Your task to perform on an android device: What is the speed of a jet? Image 0: 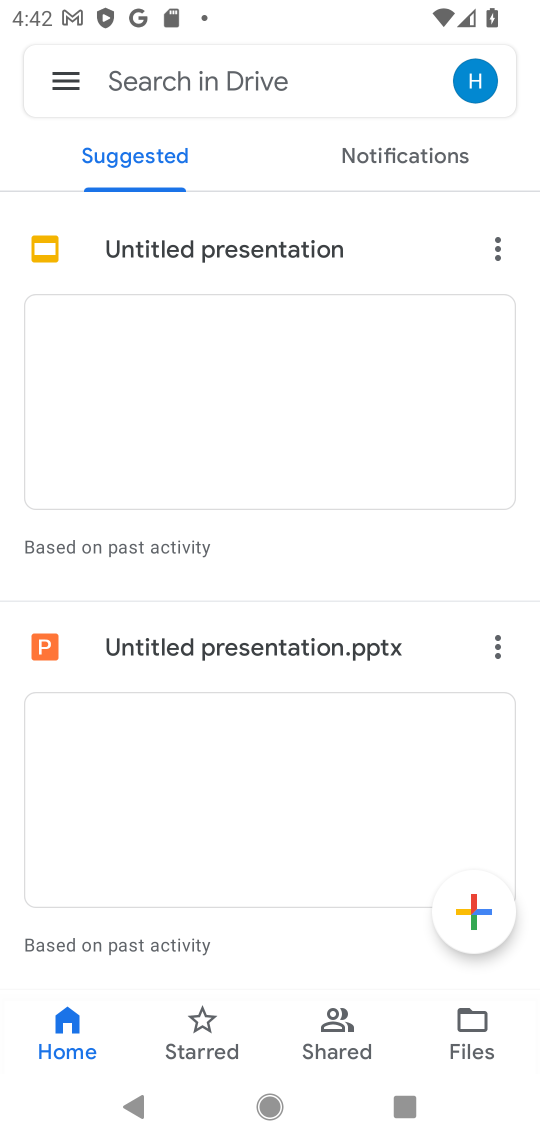
Step 0: press home button
Your task to perform on an android device: What is the speed of a jet? Image 1: 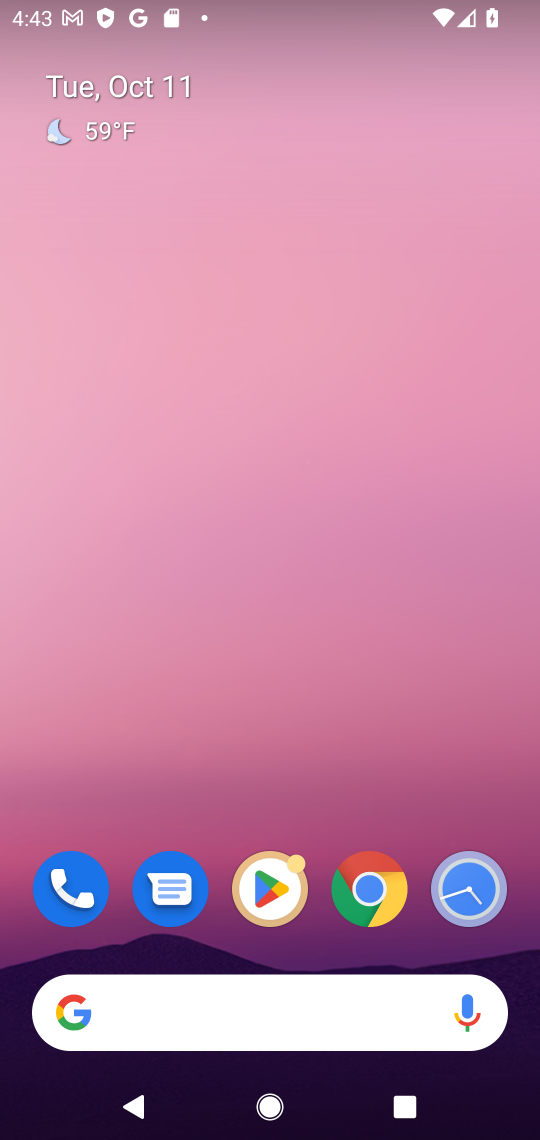
Step 1: drag from (261, 537) to (261, 236)
Your task to perform on an android device: What is the speed of a jet? Image 2: 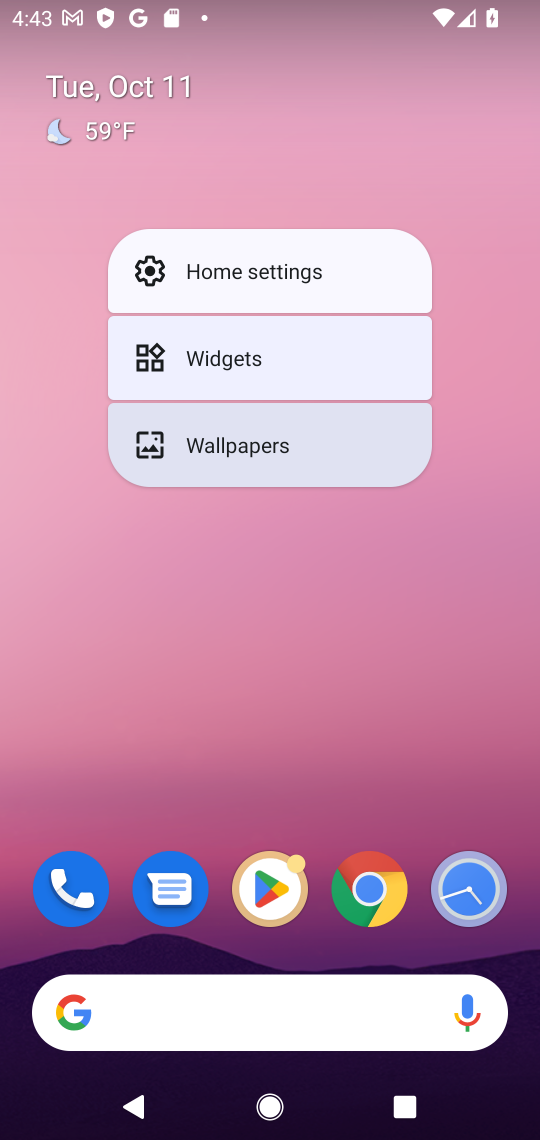
Step 2: click (286, 727)
Your task to perform on an android device: What is the speed of a jet? Image 3: 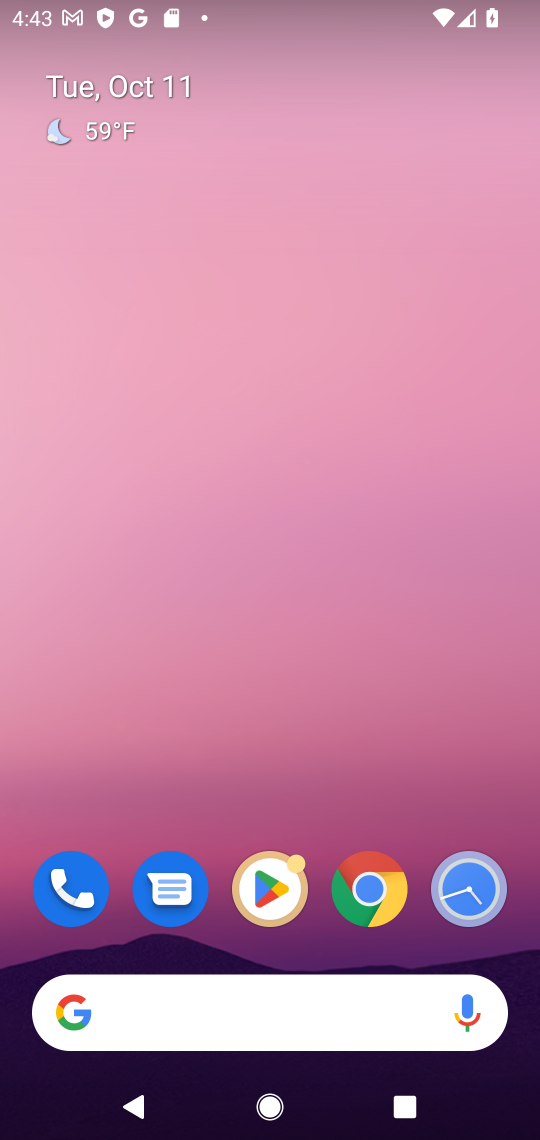
Step 3: drag from (181, 960) to (220, 424)
Your task to perform on an android device: What is the speed of a jet? Image 4: 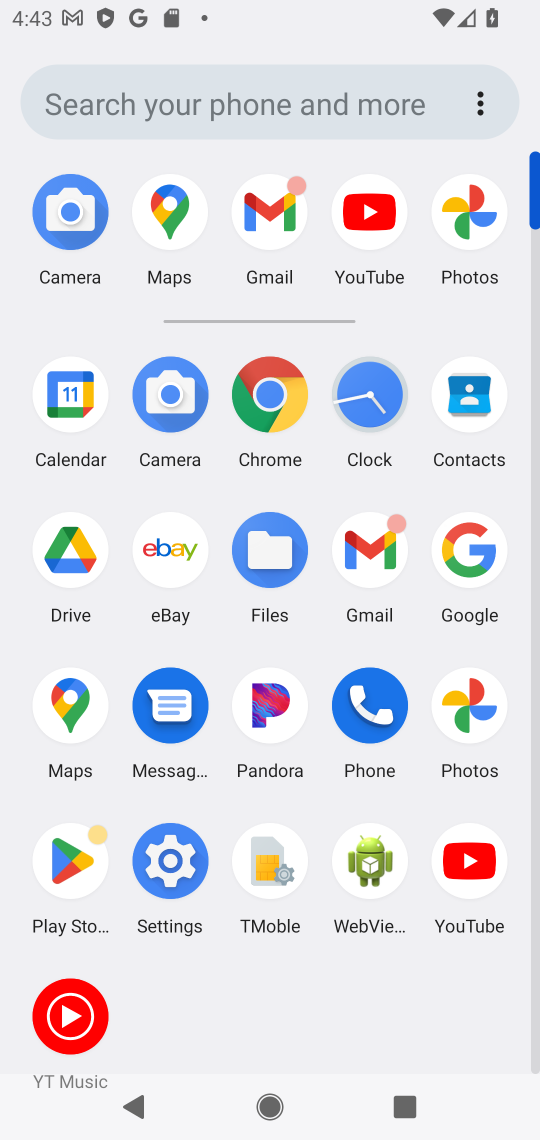
Step 4: click (462, 548)
Your task to perform on an android device: What is the speed of a jet? Image 5: 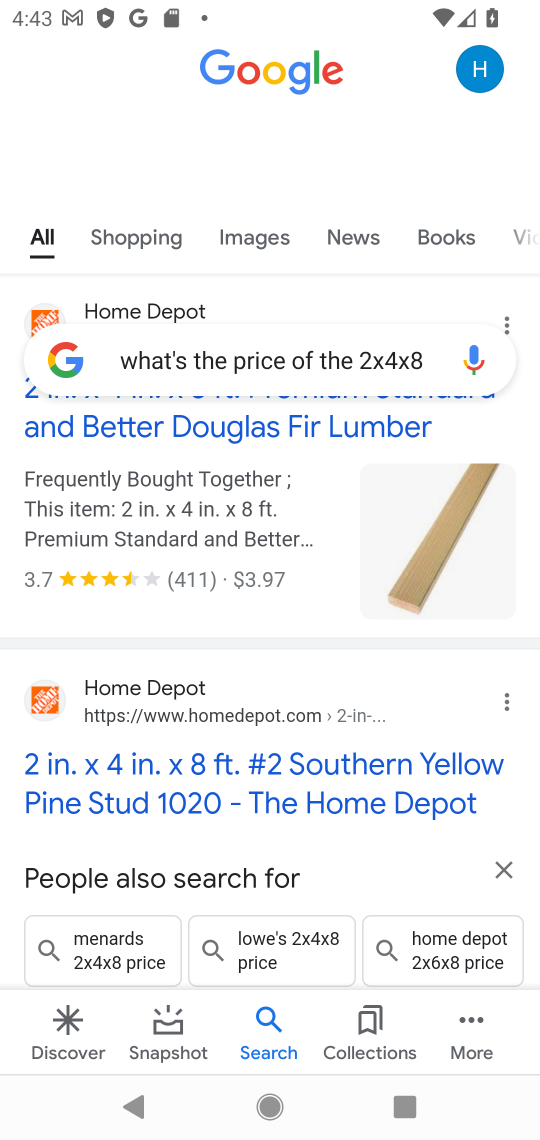
Step 5: click (239, 357)
Your task to perform on an android device: What is the speed of a jet? Image 6: 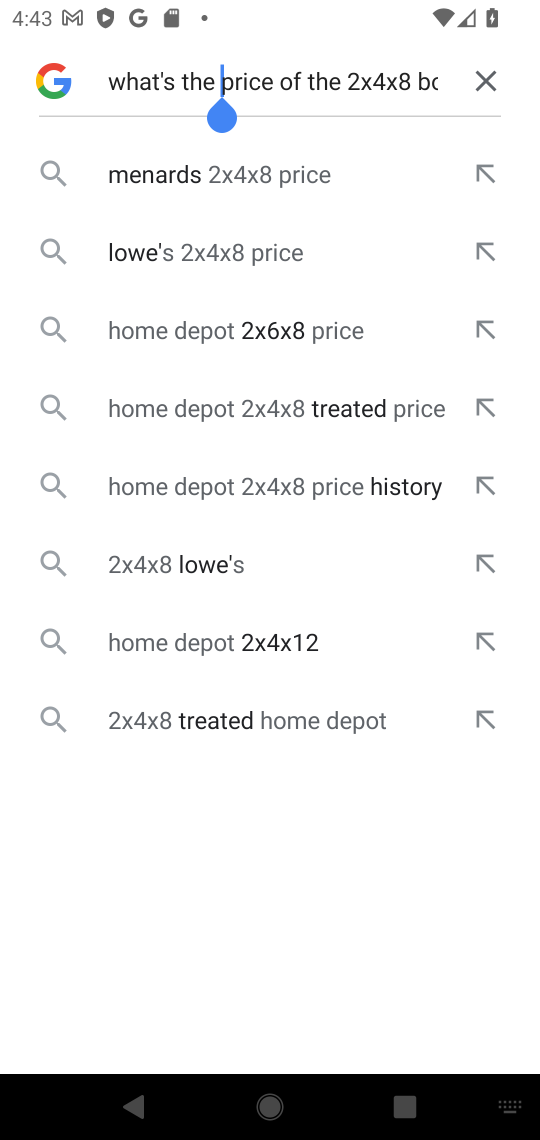
Step 6: click (486, 76)
Your task to perform on an android device: What is the speed of a jet? Image 7: 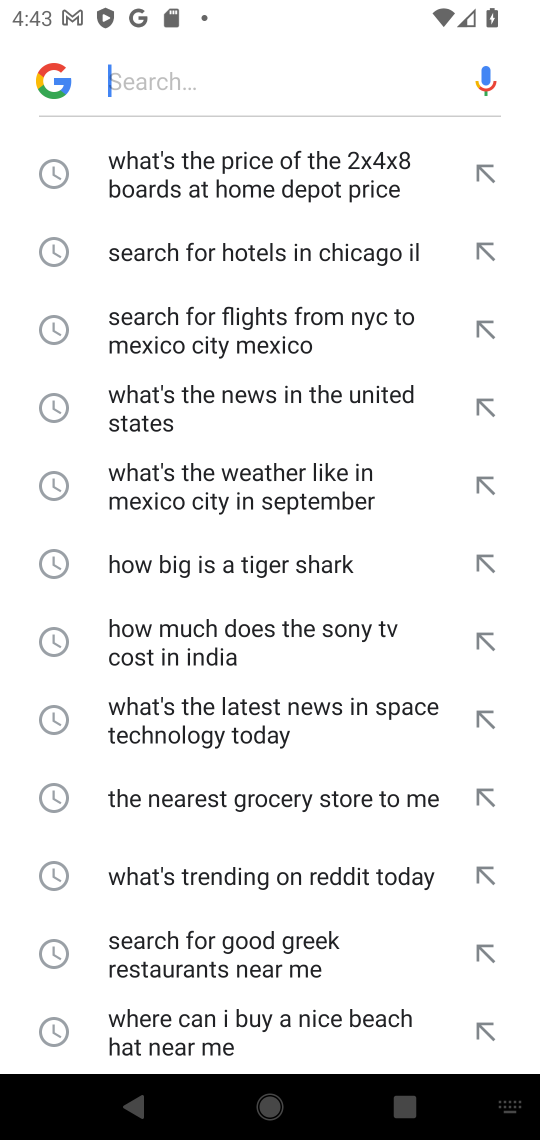
Step 7: click (255, 86)
Your task to perform on an android device: What is the speed of a jet? Image 8: 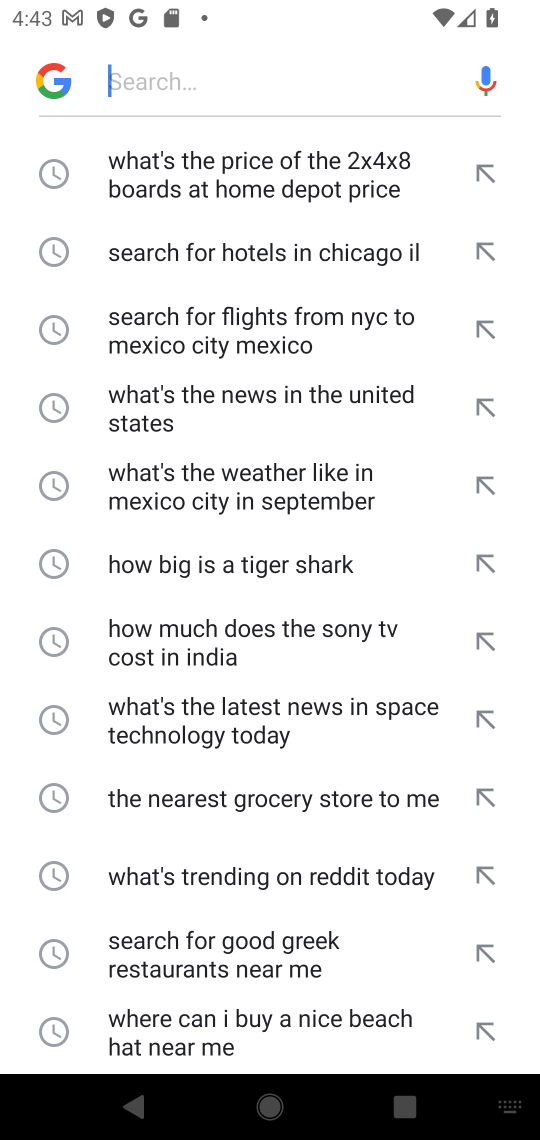
Step 8: type "What is the speed of a jet "
Your task to perform on an android device: What is the speed of a jet? Image 9: 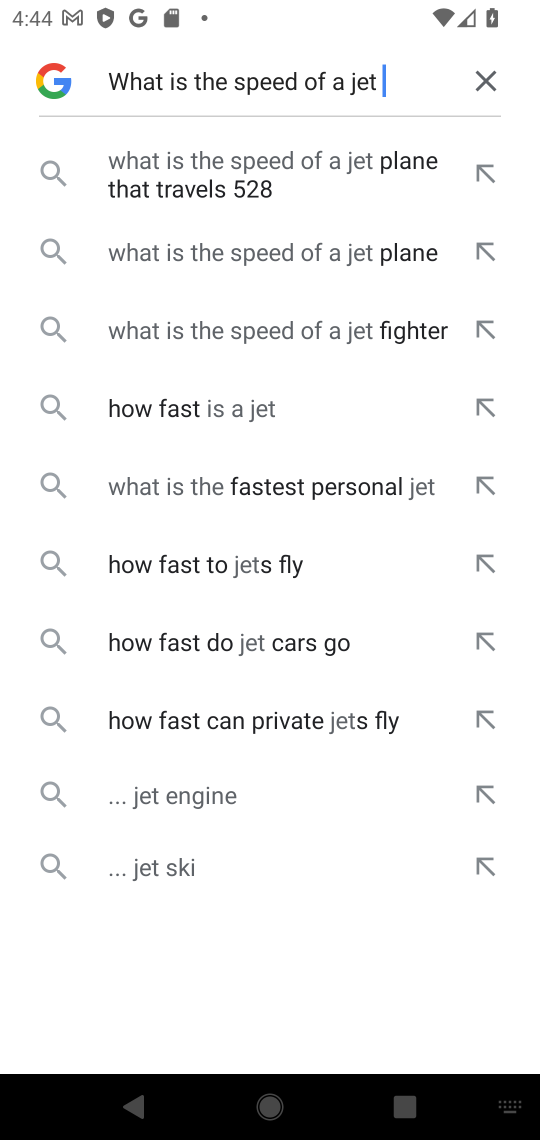
Step 9: click (274, 174)
Your task to perform on an android device: What is the speed of a jet? Image 10: 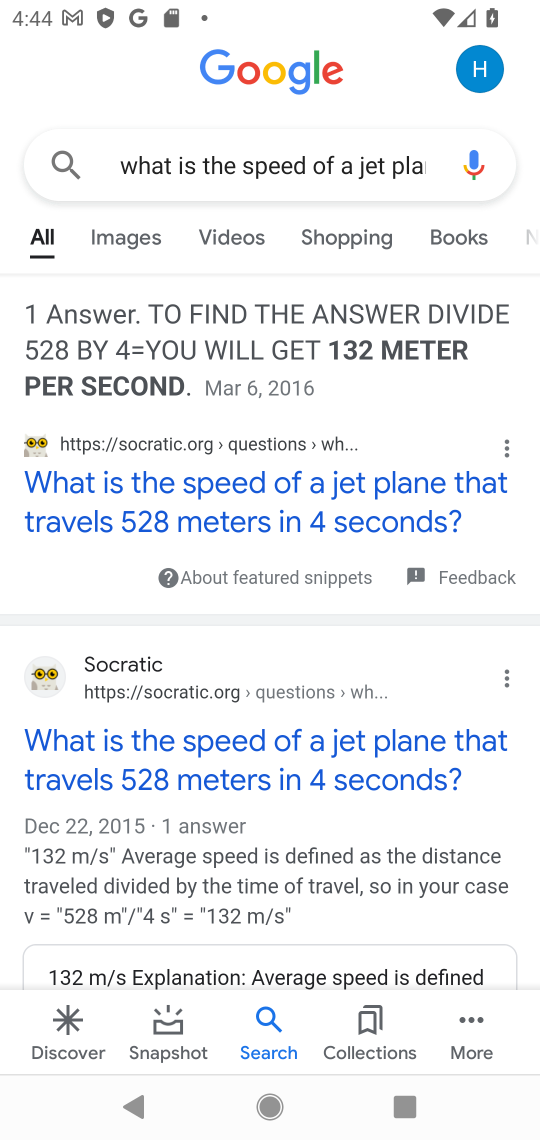
Step 10: click (217, 503)
Your task to perform on an android device: What is the speed of a jet? Image 11: 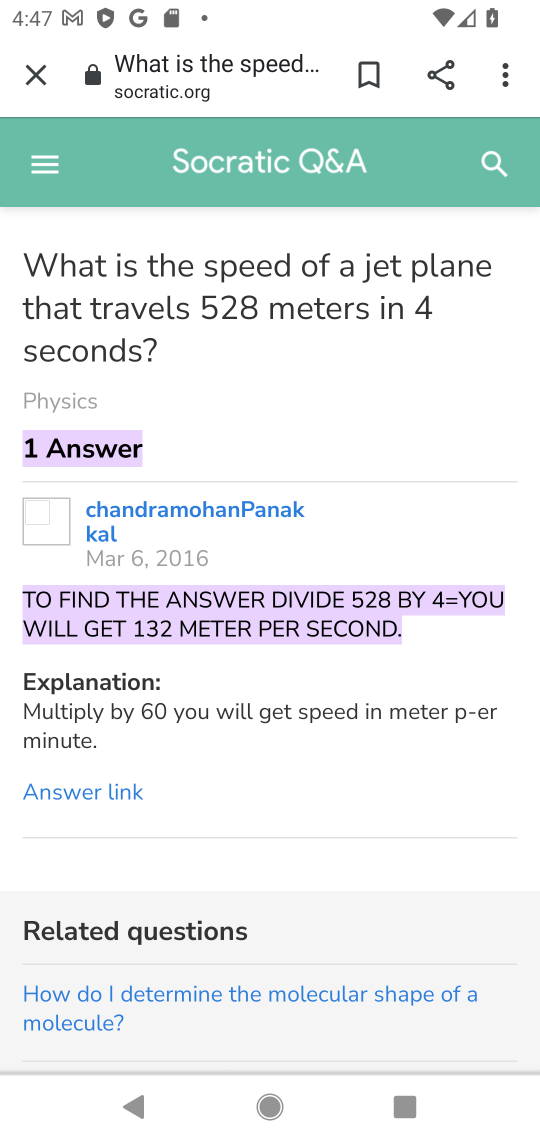
Step 11: task complete